Your task to perform on an android device: turn on javascript in the chrome app Image 0: 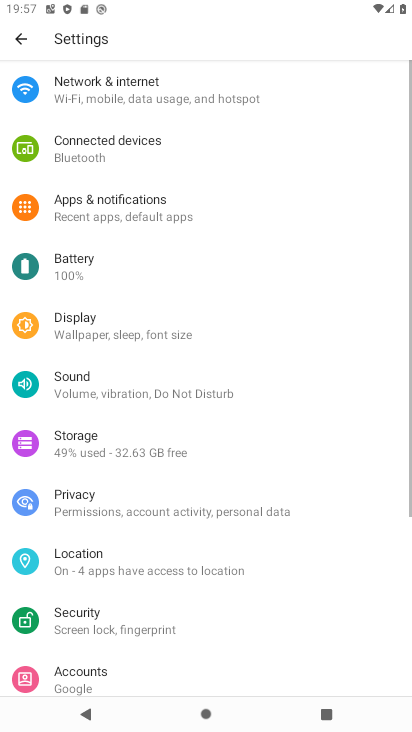
Step 0: press home button
Your task to perform on an android device: turn on javascript in the chrome app Image 1: 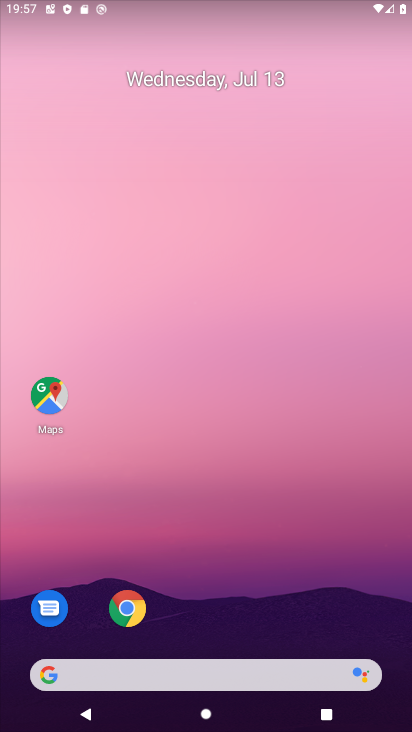
Step 1: drag from (224, 635) to (170, 144)
Your task to perform on an android device: turn on javascript in the chrome app Image 2: 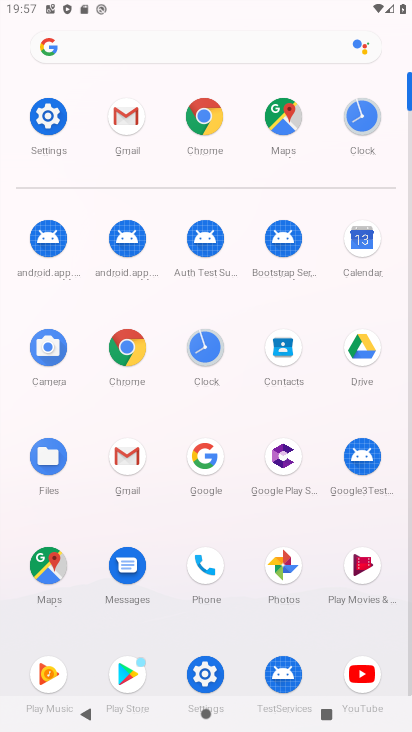
Step 2: click (211, 126)
Your task to perform on an android device: turn on javascript in the chrome app Image 3: 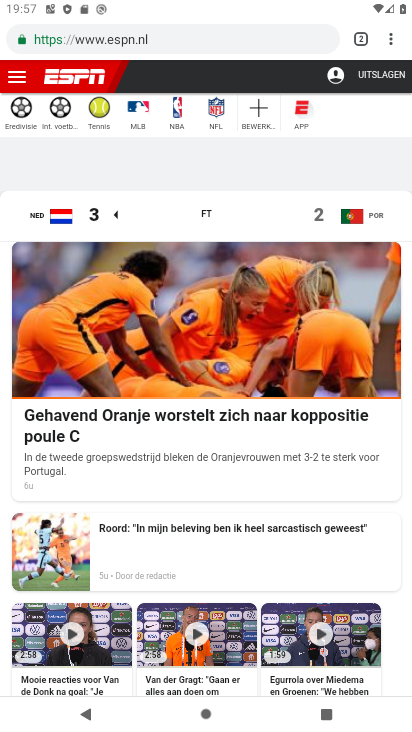
Step 3: drag from (395, 37) to (252, 517)
Your task to perform on an android device: turn on javascript in the chrome app Image 4: 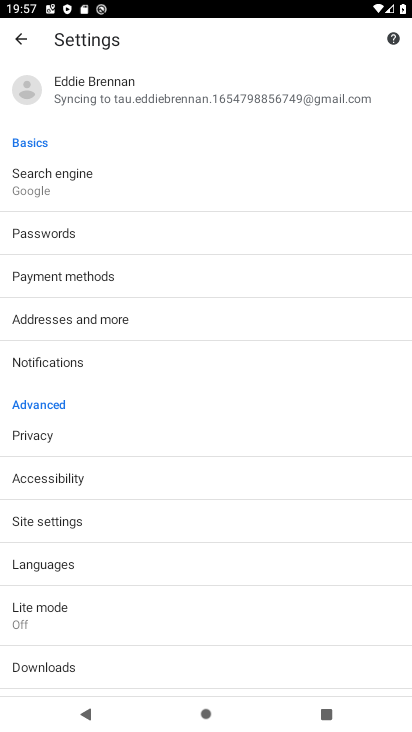
Step 4: click (56, 514)
Your task to perform on an android device: turn on javascript in the chrome app Image 5: 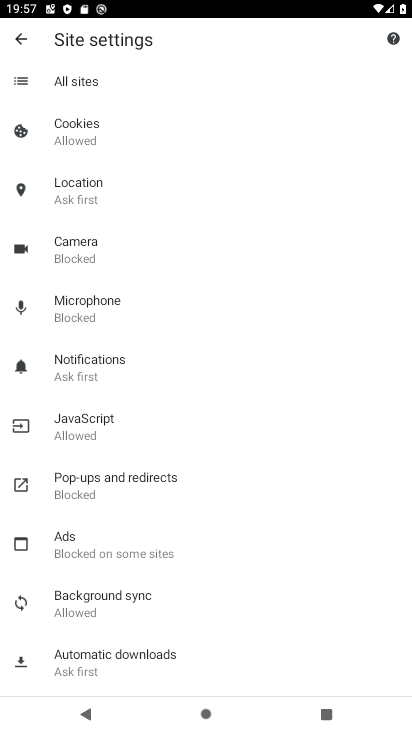
Step 5: click (124, 426)
Your task to perform on an android device: turn on javascript in the chrome app Image 6: 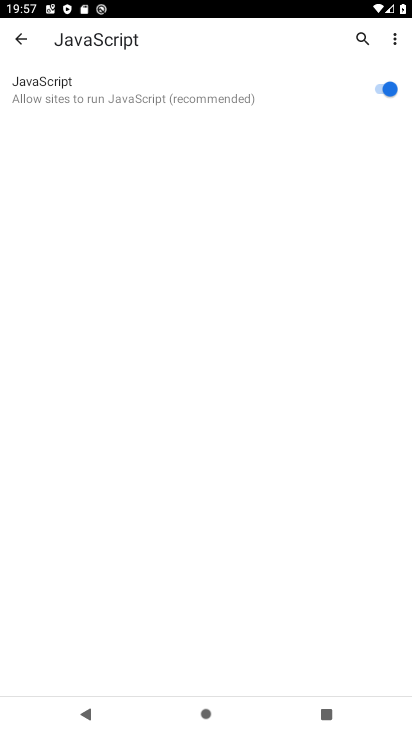
Step 6: task complete